Your task to perform on an android device: turn on javascript in the chrome app Image 0: 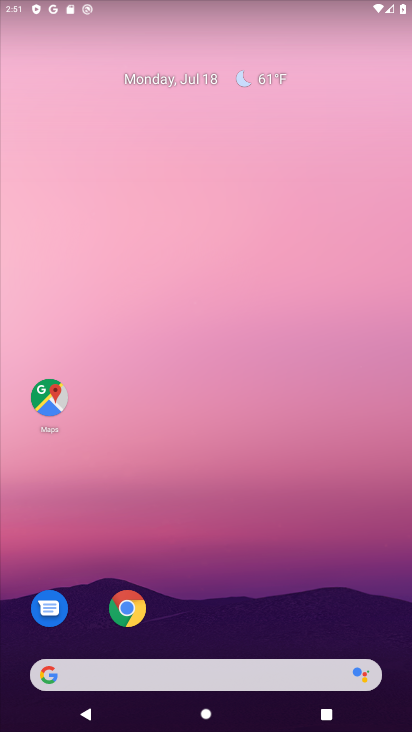
Step 0: click (122, 607)
Your task to perform on an android device: turn on javascript in the chrome app Image 1: 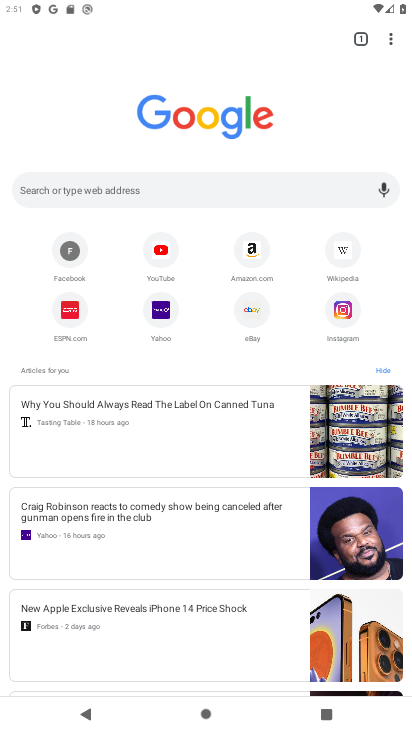
Step 1: click (388, 31)
Your task to perform on an android device: turn on javascript in the chrome app Image 2: 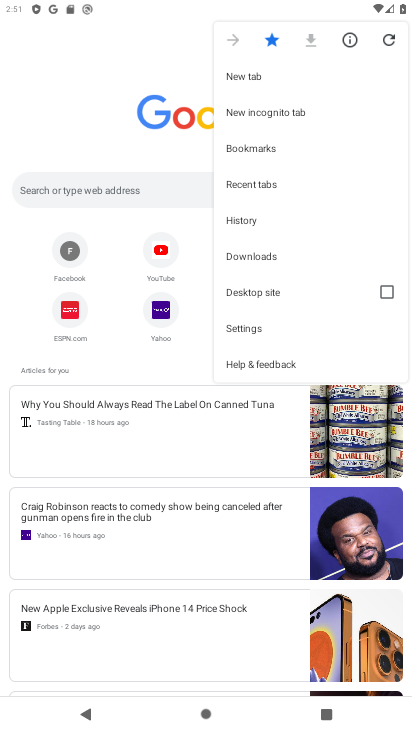
Step 2: click (257, 343)
Your task to perform on an android device: turn on javascript in the chrome app Image 3: 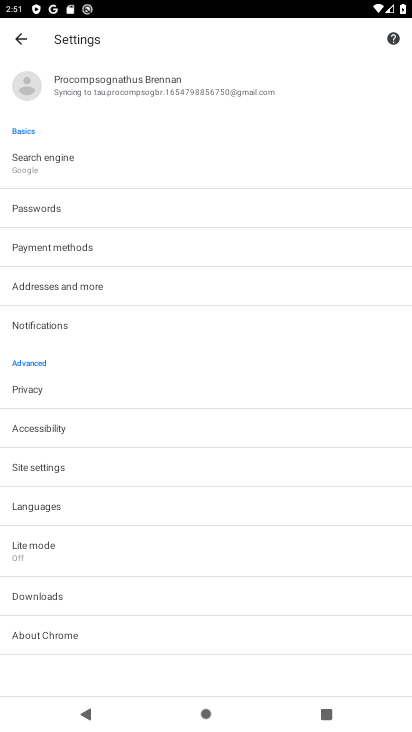
Step 3: click (80, 467)
Your task to perform on an android device: turn on javascript in the chrome app Image 4: 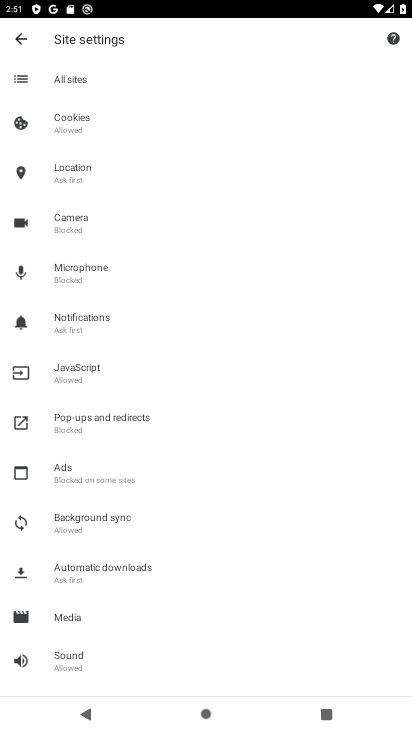
Step 4: click (99, 375)
Your task to perform on an android device: turn on javascript in the chrome app Image 5: 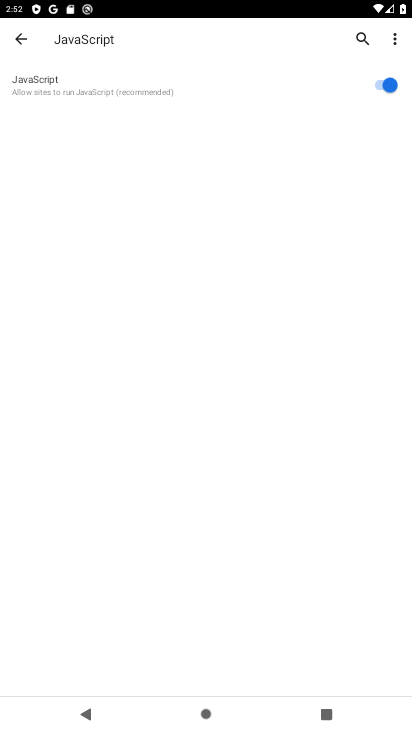
Step 5: task complete